Your task to perform on an android device: turn on notifications settings in the gmail app Image 0: 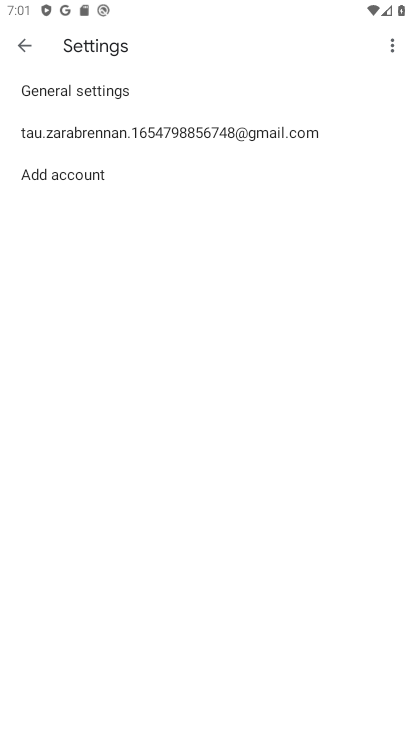
Step 0: click (198, 135)
Your task to perform on an android device: turn on notifications settings in the gmail app Image 1: 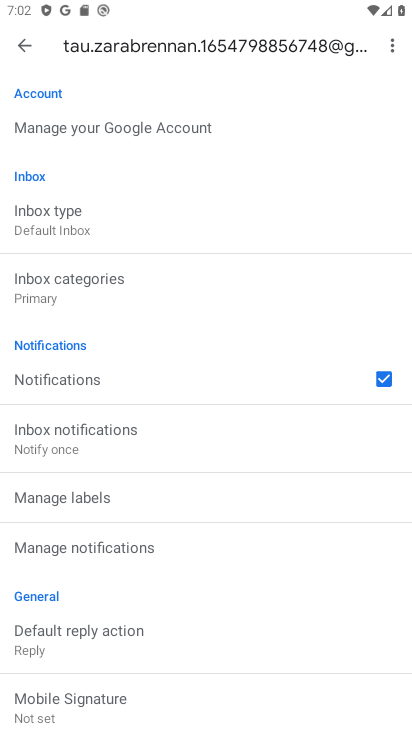
Step 1: click (129, 540)
Your task to perform on an android device: turn on notifications settings in the gmail app Image 2: 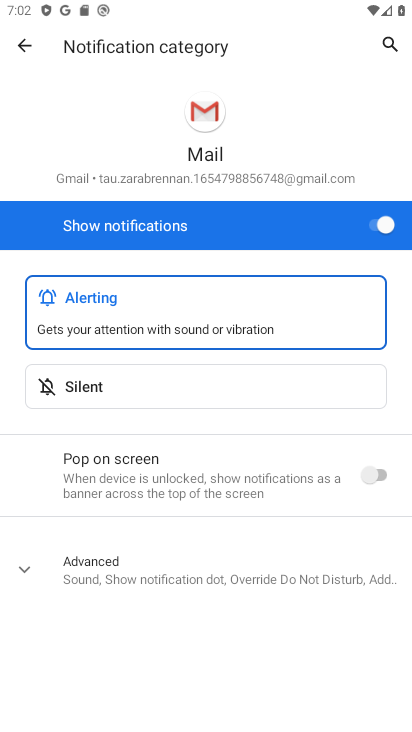
Step 2: task complete